Your task to perform on an android device: Is it going to rain this weekend? Image 0: 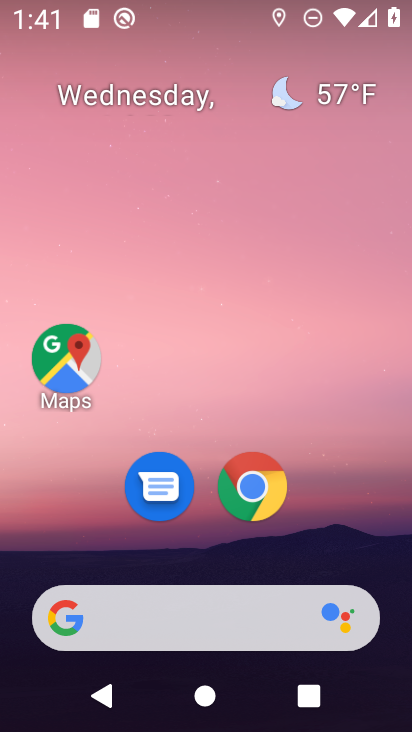
Step 0: click (252, 612)
Your task to perform on an android device: Is it going to rain this weekend? Image 1: 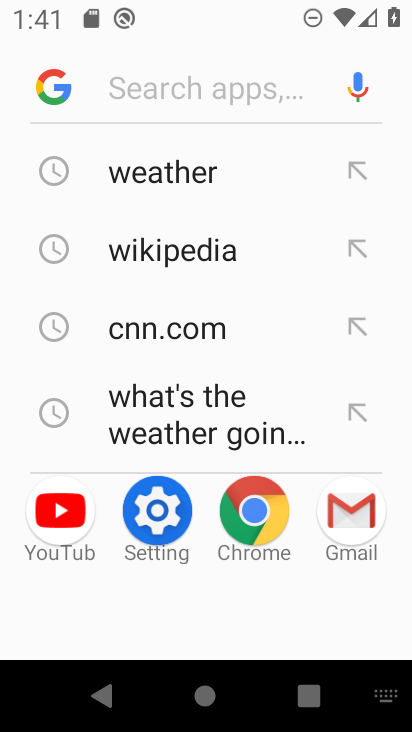
Step 1: click (197, 179)
Your task to perform on an android device: Is it going to rain this weekend? Image 2: 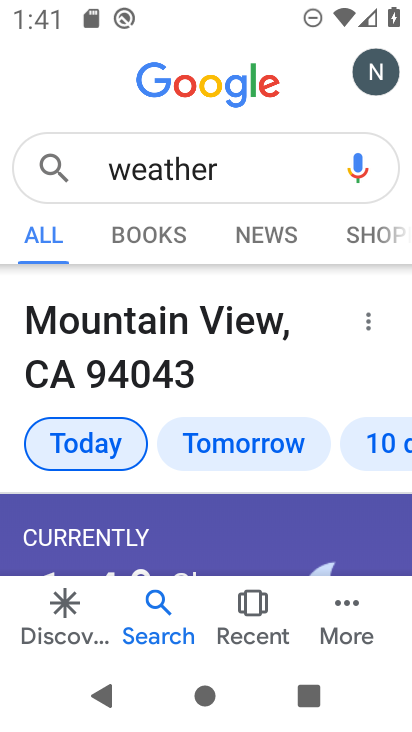
Step 2: click (379, 457)
Your task to perform on an android device: Is it going to rain this weekend? Image 3: 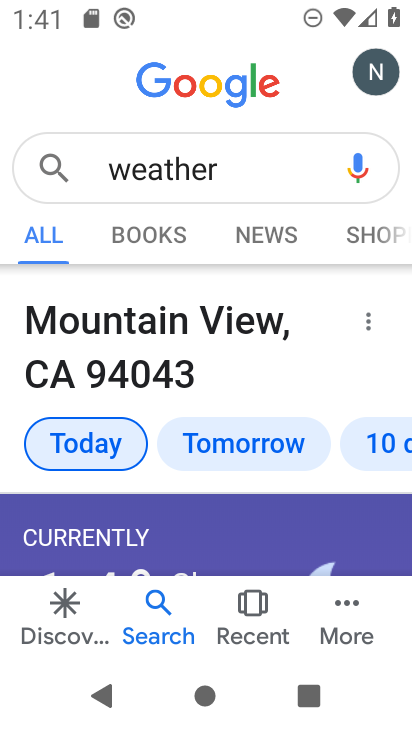
Step 3: click (381, 447)
Your task to perform on an android device: Is it going to rain this weekend? Image 4: 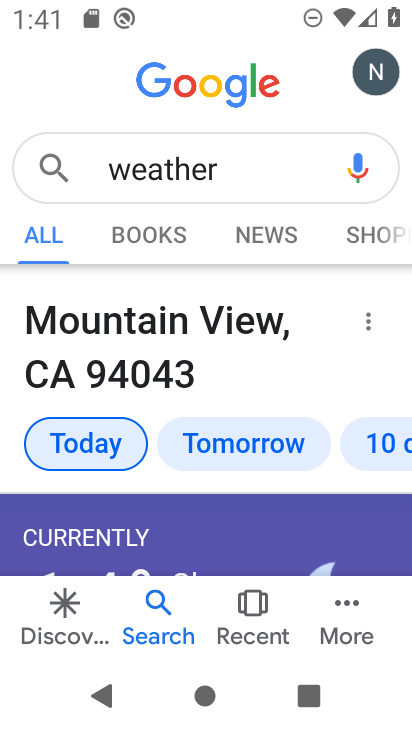
Step 4: click (381, 447)
Your task to perform on an android device: Is it going to rain this weekend? Image 5: 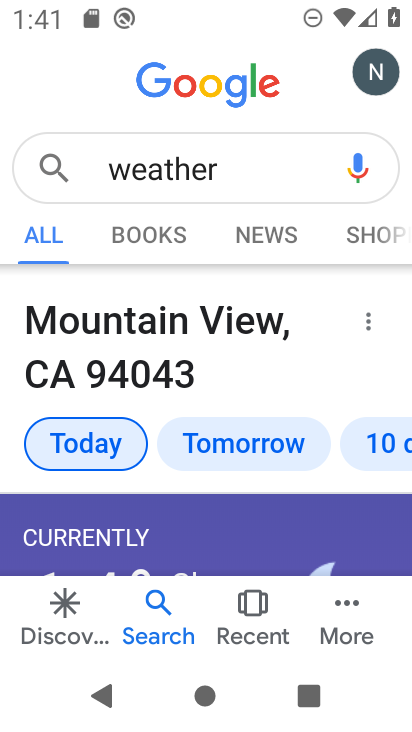
Step 5: click (381, 447)
Your task to perform on an android device: Is it going to rain this weekend? Image 6: 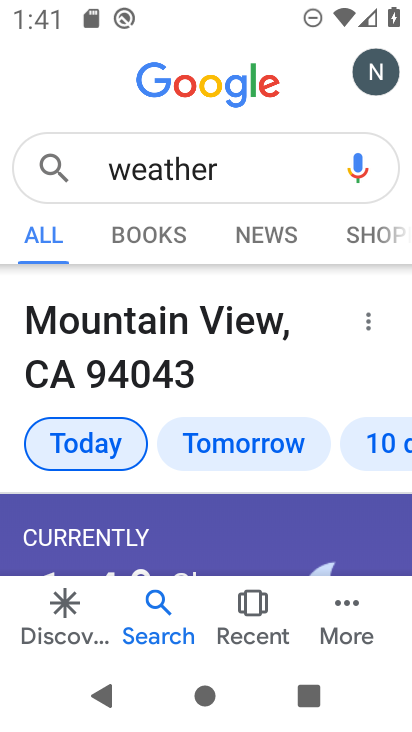
Step 6: task complete